Your task to perform on an android device: Open Maps and search for coffee Image 0: 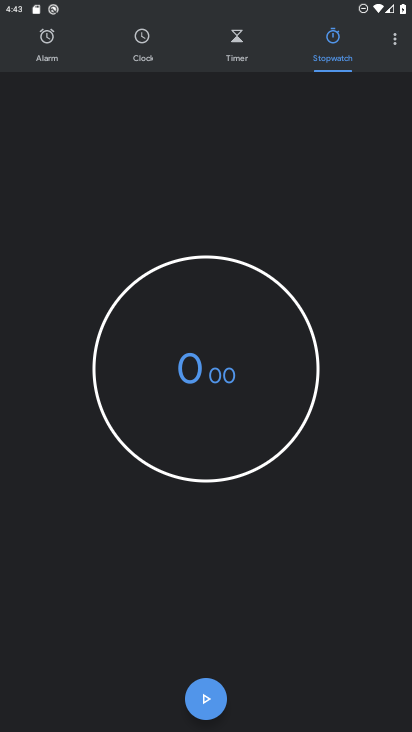
Step 0: press home button
Your task to perform on an android device: Open Maps and search for coffee Image 1: 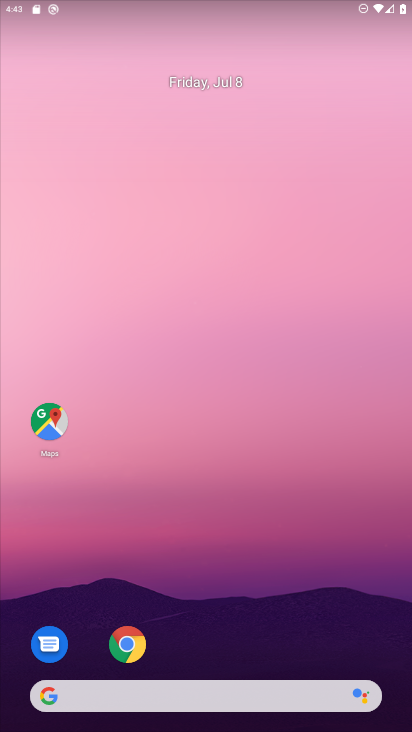
Step 1: drag from (277, 619) to (256, 159)
Your task to perform on an android device: Open Maps and search for coffee Image 2: 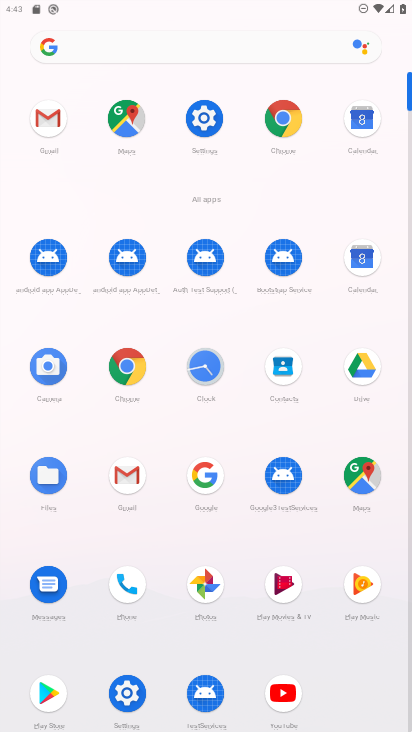
Step 2: click (125, 117)
Your task to perform on an android device: Open Maps and search for coffee Image 3: 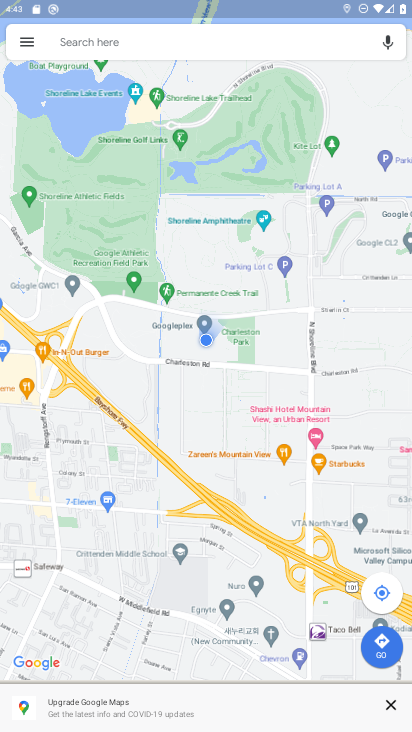
Step 3: click (239, 37)
Your task to perform on an android device: Open Maps and search for coffee Image 4: 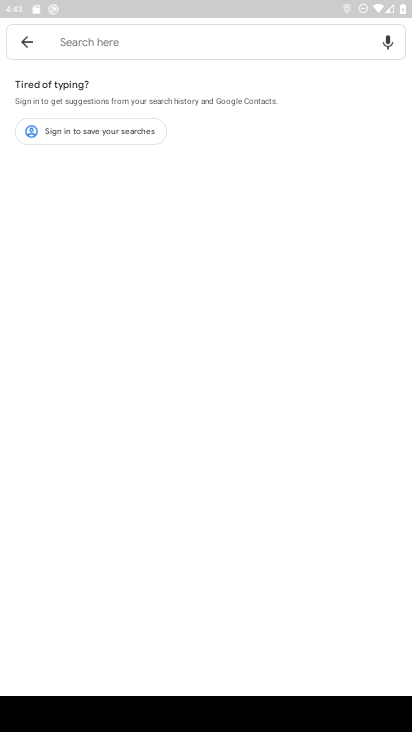
Step 4: type "coffee"
Your task to perform on an android device: Open Maps and search for coffee Image 5: 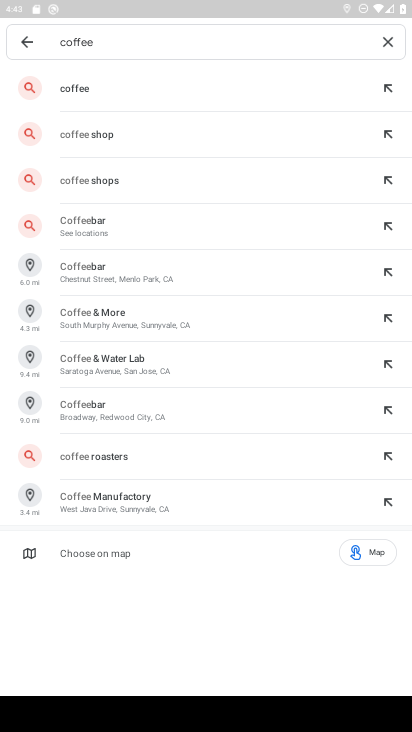
Step 5: click (82, 94)
Your task to perform on an android device: Open Maps and search for coffee Image 6: 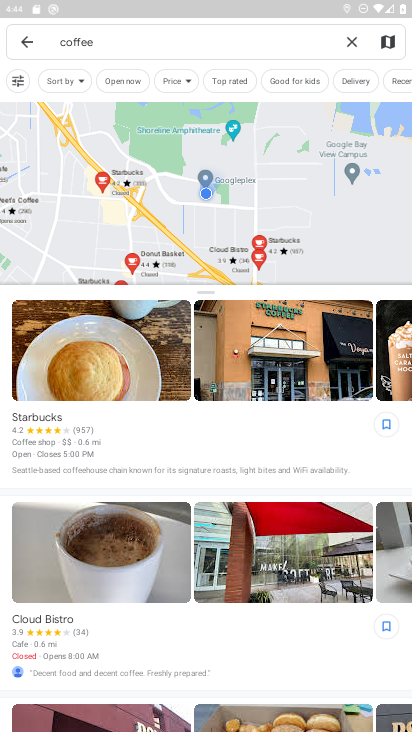
Step 6: task complete